Your task to perform on an android device: all mails in gmail Image 0: 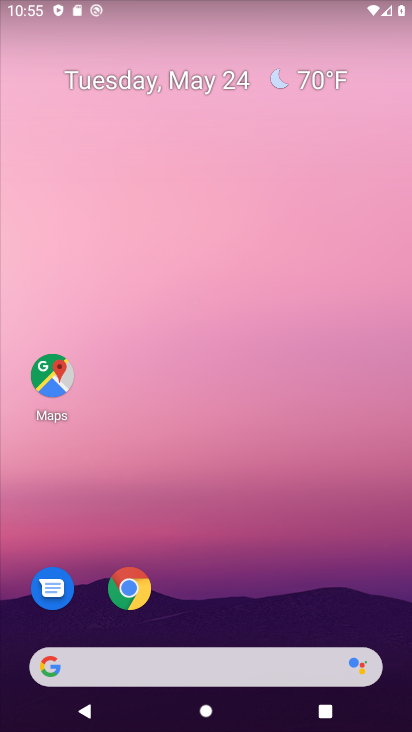
Step 0: press home button
Your task to perform on an android device: all mails in gmail Image 1: 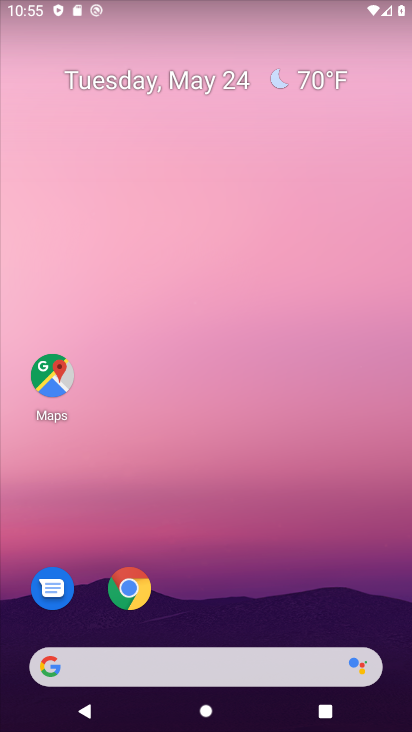
Step 1: drag from (221, 626) to (215, 21)
Your task to perform on an android device: all mails in gmail Image 2: 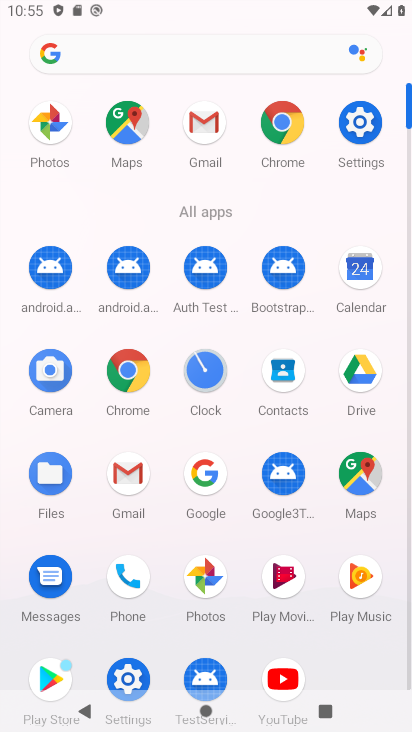
Step 2: click (125, 467)
Your task to perform on an android device: all mails in gmail Image 3: 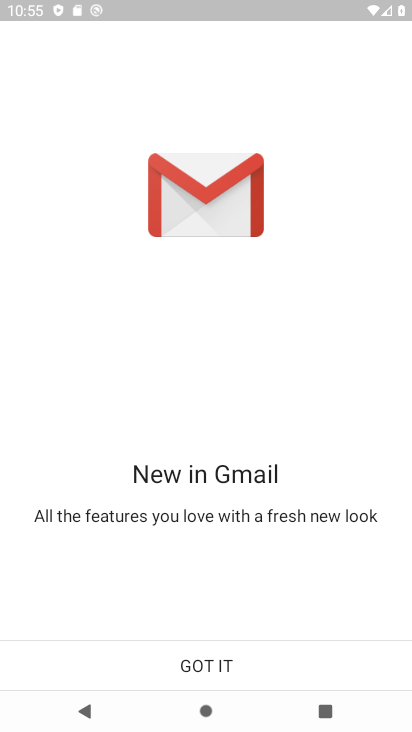
Step 3: click (208, 674)
Your task to perform on an android device: all mails in gmail Image 4: 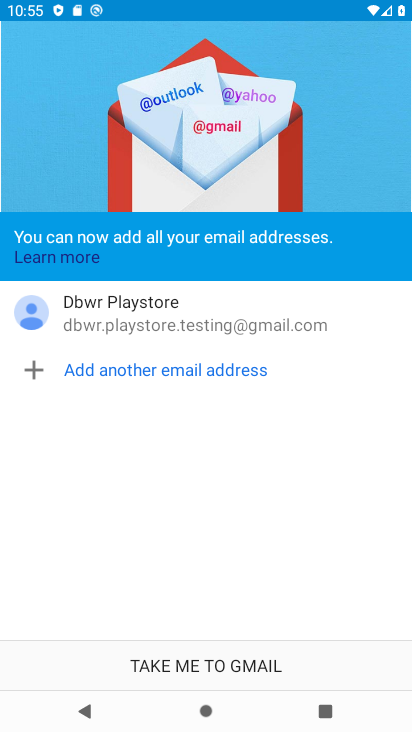
Step 4: click (210, 673)
Your task to perform on an android device: all mails in gmail Image 5: 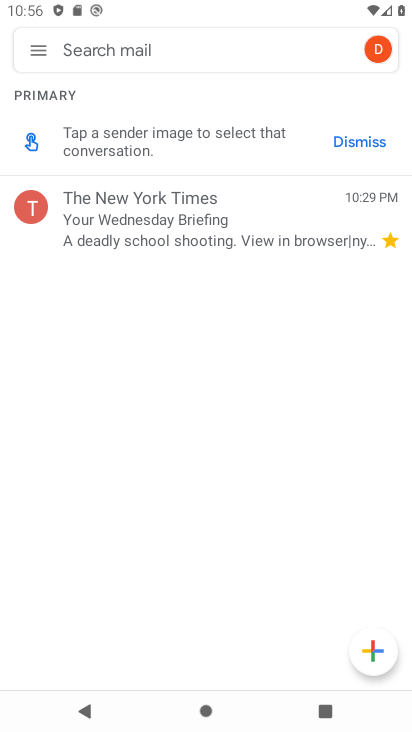
Step 5: click (26, 46)
Your task to perform on an android device: all mails in gmail Image 6: 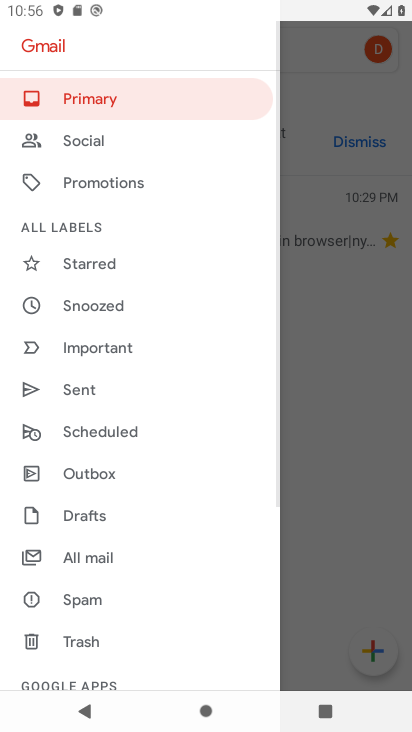
Step 6: click (100, 557)
Your task to perform on an android device: all mails in gmail Image 7: 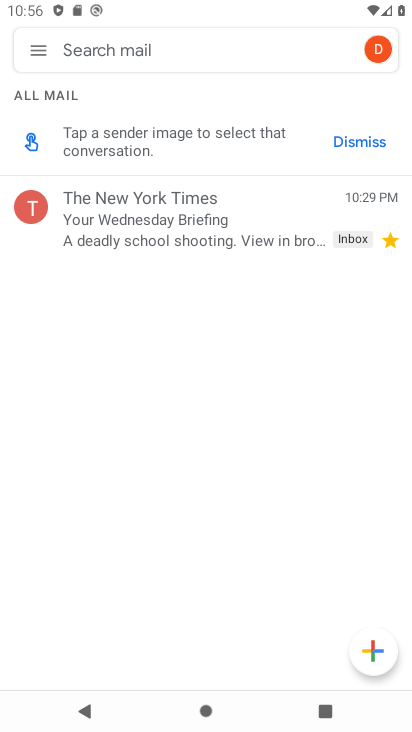
Step 7: task complete